Your task to perform on an android device: Open Android settings Image 0: 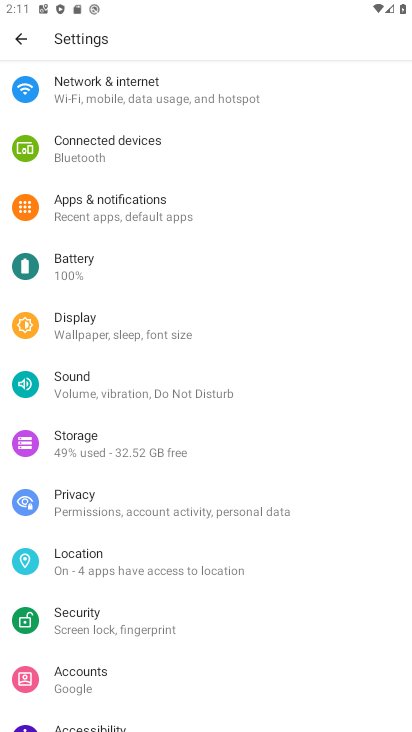
Step 0: task complete